Your task to perform on an android device: Search for pizza restaurants on Maps Image 0: 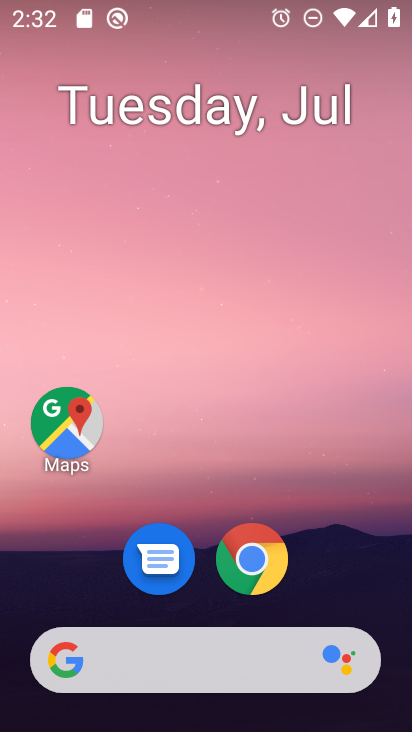
Step 0: drag from (361, 589) to (374, 152)
Your task to perform on an android device: Search for pizza restaurants on Maps Image 1: 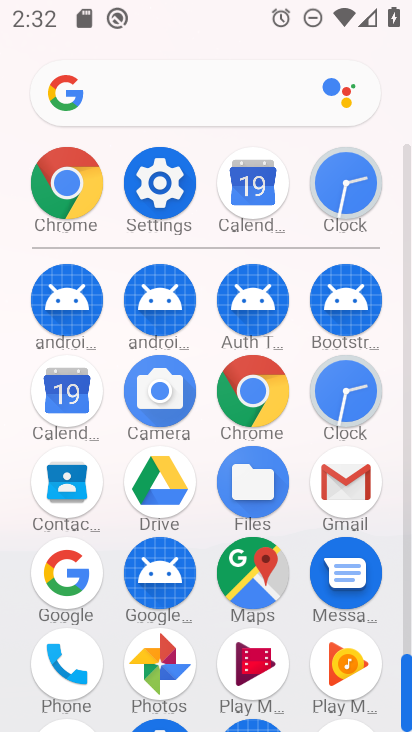
Step 1: click (256, 566)
Your task to perform on an android device: Search for pizza restaurants on Maps Image 2: 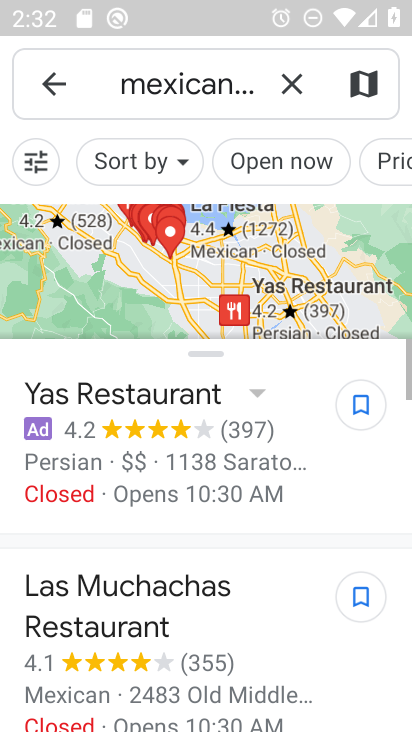
Step 2: press back button
Your task to perform on an android device: Search for pizza restaurants on Maps Image 3: 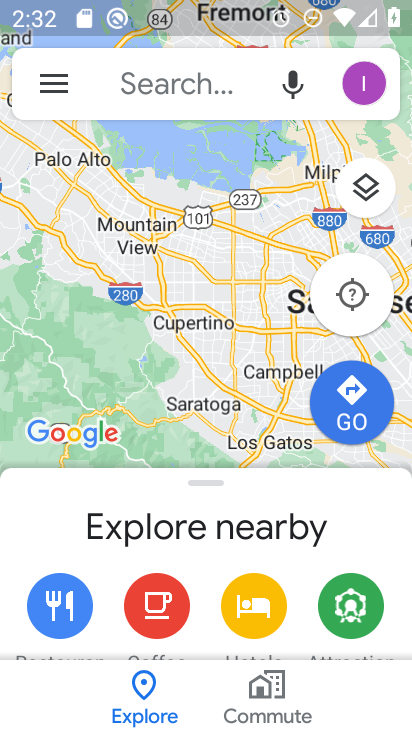
Step 3: click (230, 88)
Your task to perform on an android device: Search for pizza restaurants on Maps Image 4: 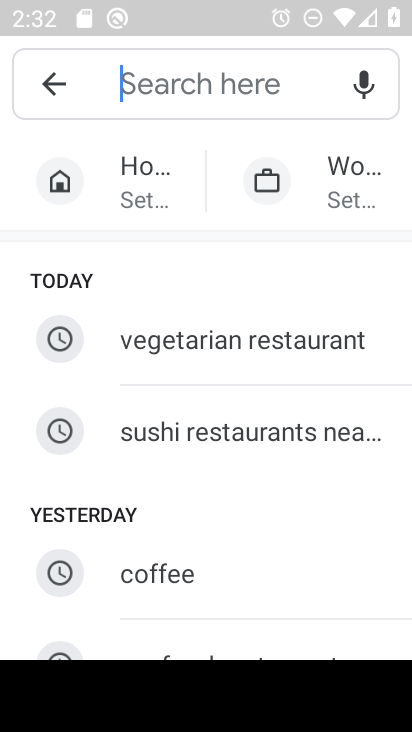
Step 4: type "pizza restaurants"
Your task to perform on an android device: Search for pizza restaurants on Maps Image 5: 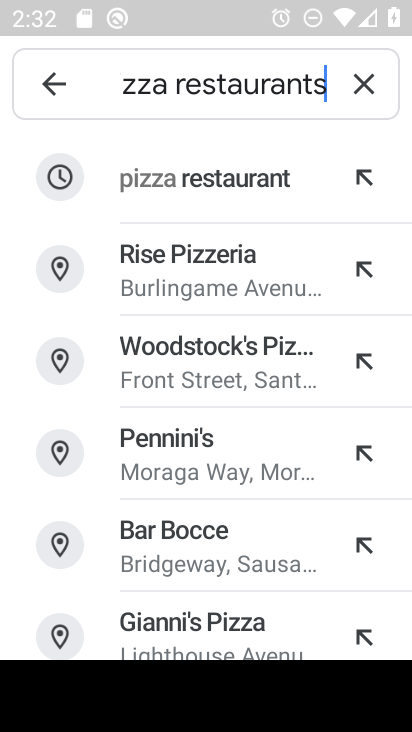
Step 5: click (249, 196)
Your task to perform on an android device: Search for pizza restaurants on Maps Image 6: 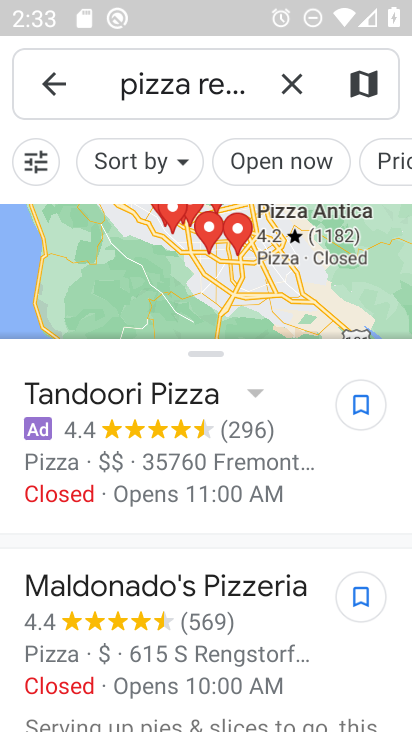
Step 6: task complete